Your task to perform on an android device: Do I have any events tomorrow? Image 0: 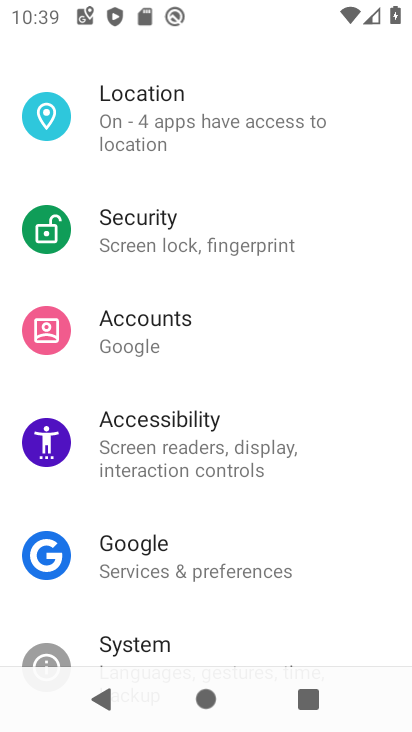
Step 0: press home button
Your task to perform on an android device: Do I have any events tomorrow? Image 1: 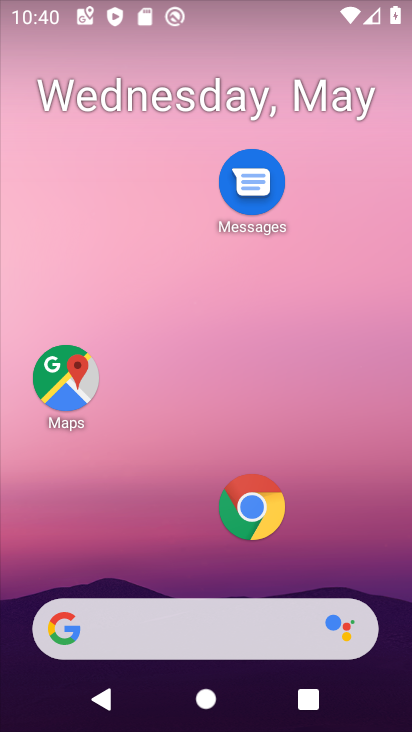
Step 1: drag from (192, 576) to (182, 64)
Your task to perform on an android device: Do I have any events tomorrow? Image 2: 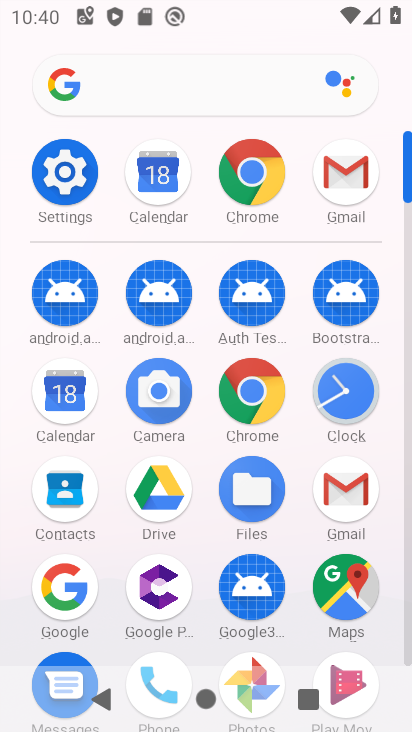
Step 2: click (67, 386)
Your task to perform on an android device: Do I have any events tomorrow? Image 3: 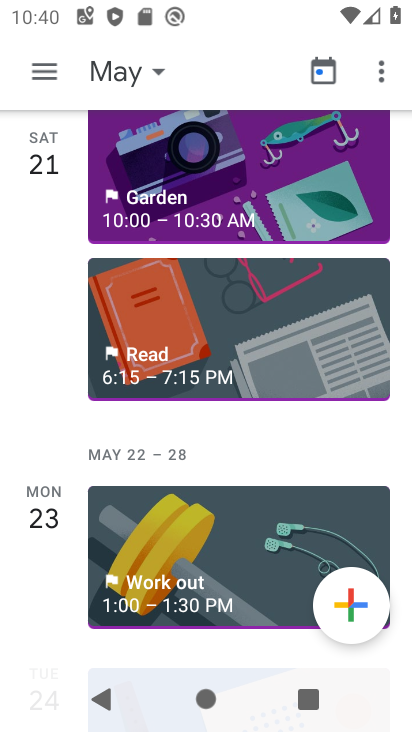
Step 3: click (39, 63)
Your task to perform on an android device: Do I have any events tomorrow? Image 4: 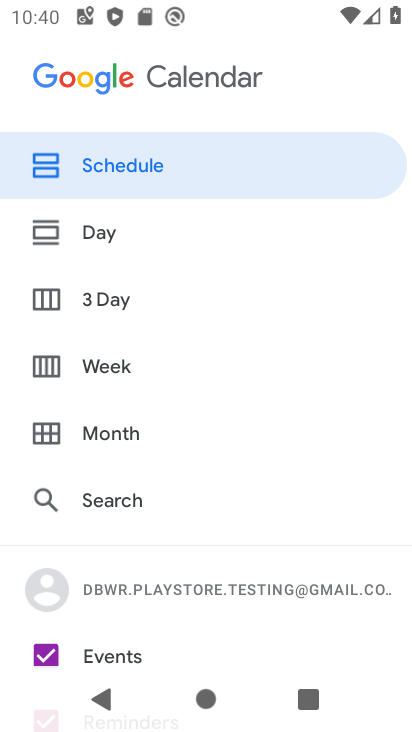
Step 4: click (71, 228)
Your task to perform on an android device: Do I have any events tomorrow? Image 5: 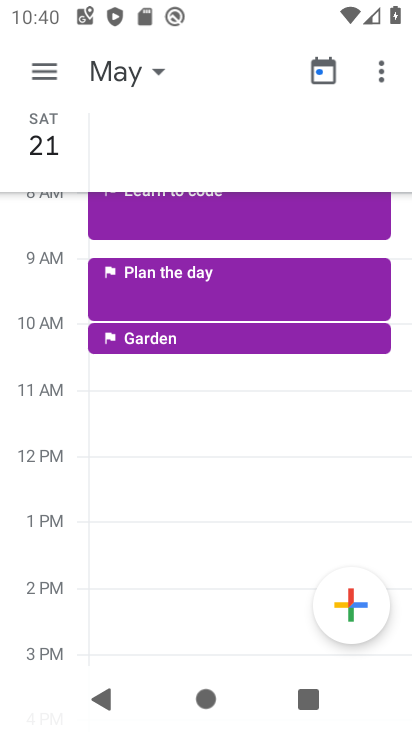
Step 5: click (65, 151)
Your task to perform on an android device: Do I have any events tomorrow? Image 6: 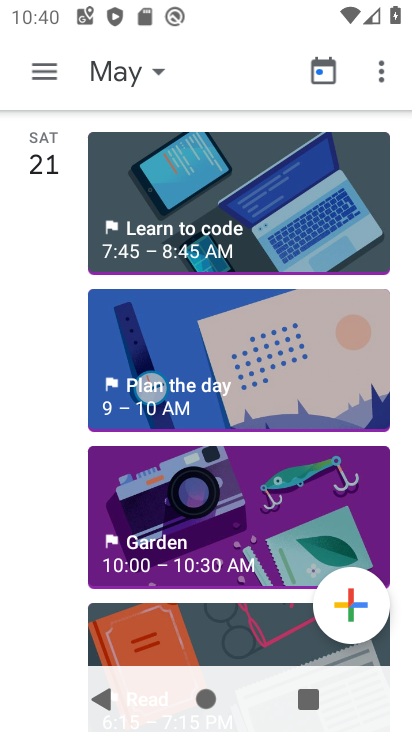
Step 6: drag from (47, 604) to (86, 180)
Your task to perform on an android device: Do I have any events tomorrow? Image 7: 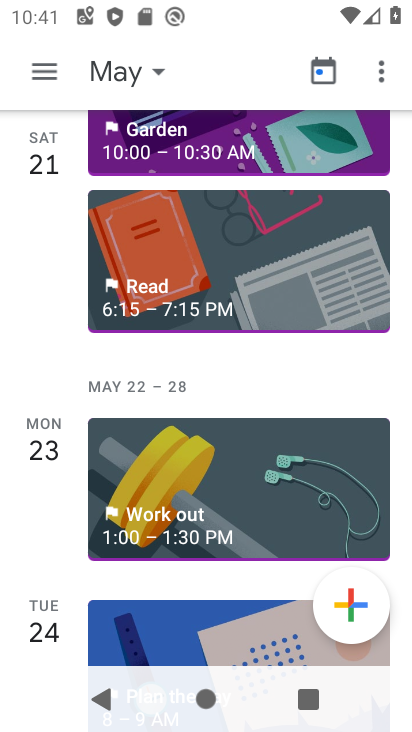
Step 7: drag from (70, 185) to (58, 543)
Your task to perform on an android device: Do I have any events tomorrow? Image 8: 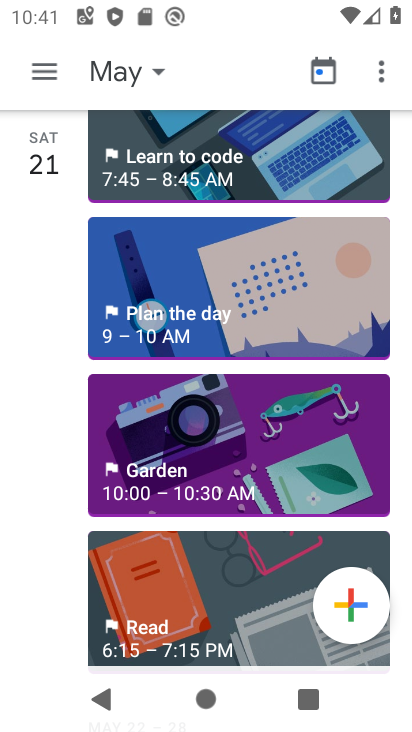
Step 8: drag from (59, 164) to (60, 576)
Your task to perform on an android device: Do I have any events tomorrow? Image 9: 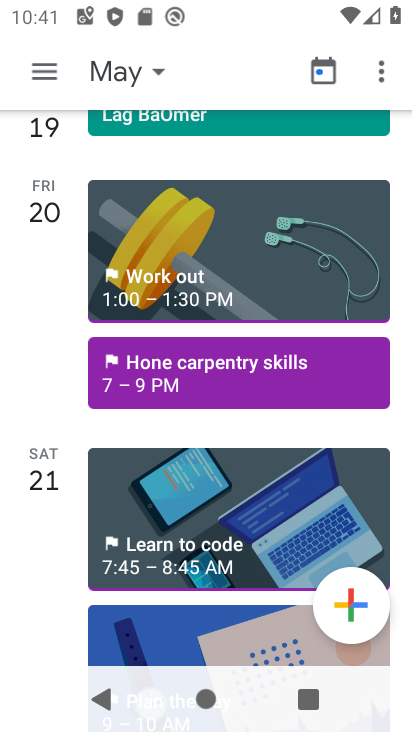
Step 9: drag from (53, 201) to (42, 496)
Your task to perform on an android device: Do I have any events tomorrow? Image 10: 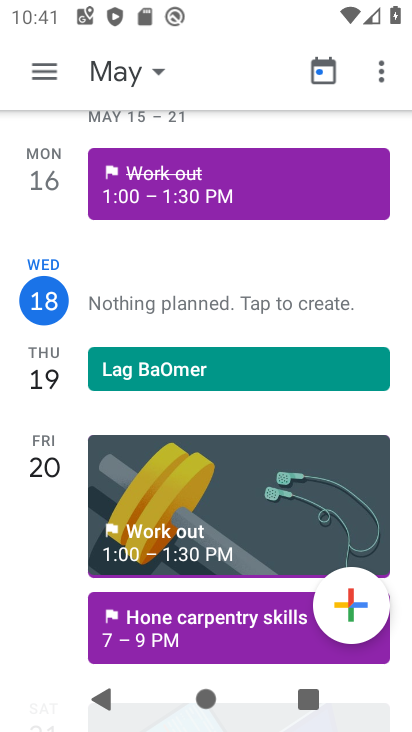
Step 10: click (68, 331)
Your task to perform on an android device: Do I have any events tomorrow? Image 11: 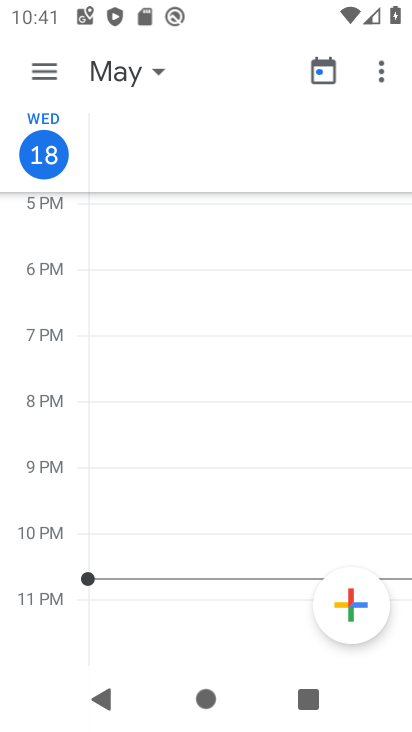
Step 11: click (68, 164)
Your task to perform on an android device: Do I have any events tomorrow? Image 12: 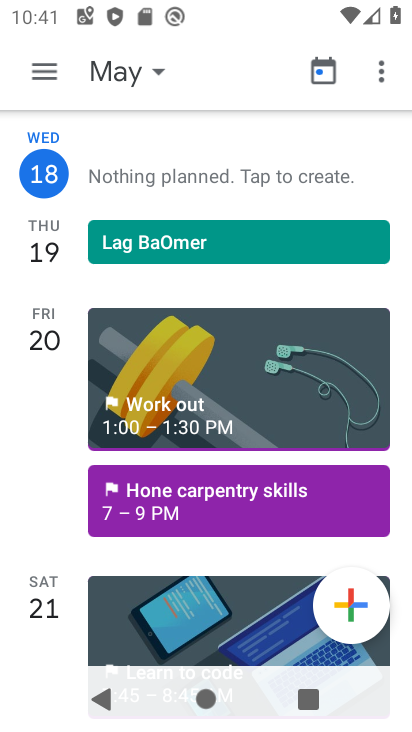
Step 12: click (64, 261)
Your task to perform on an android device: Do I have any events tomorrow? Image 13: 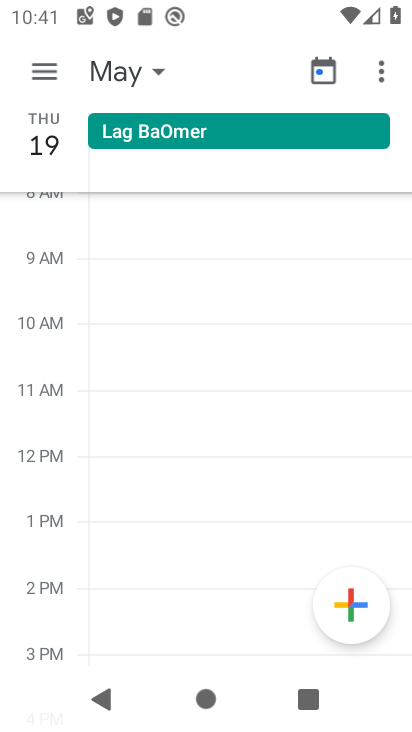
Step 13: task complete